Your task to perform on an android device: search for starred emails in the gmail app Image 0: 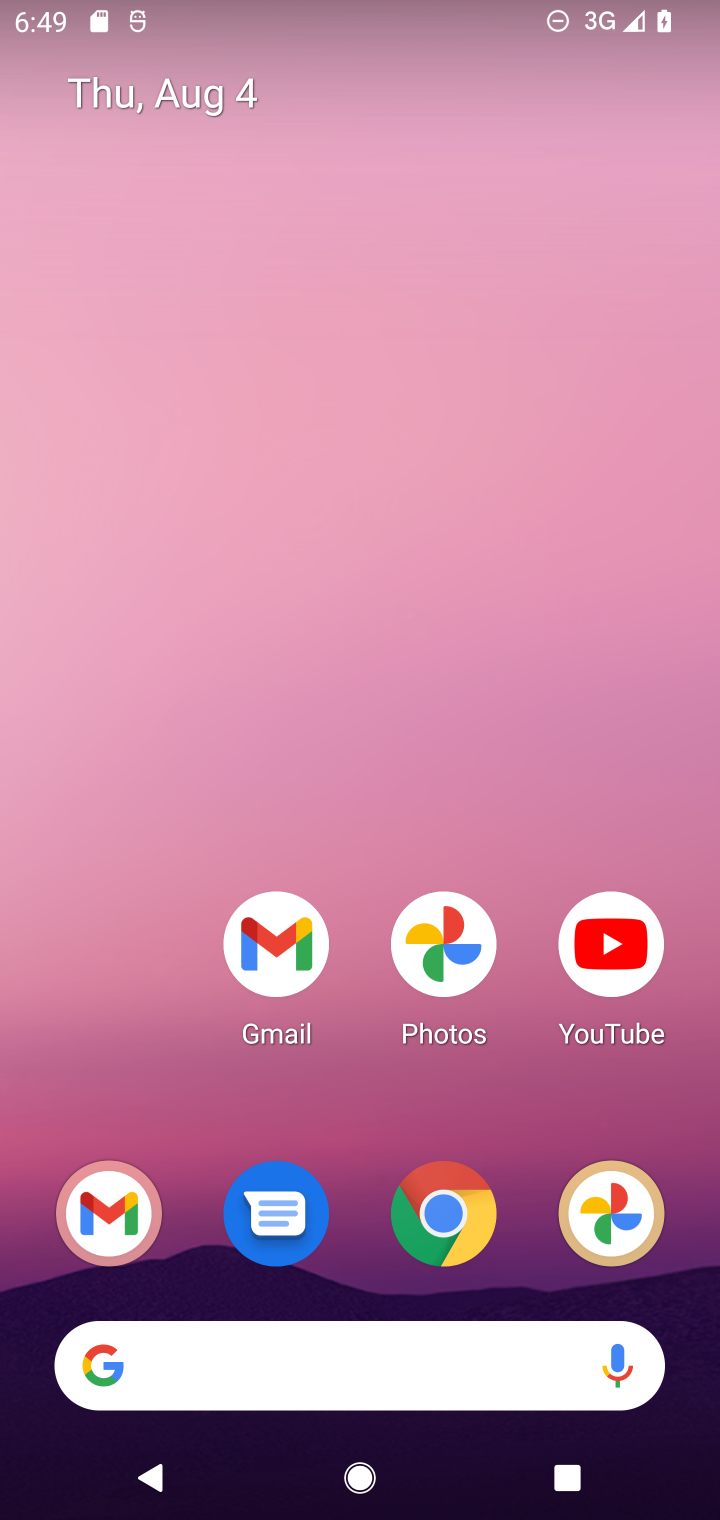
Step 0: press home button
Your task to perform on an android device: search for starred emails in the gmail app Image 1: 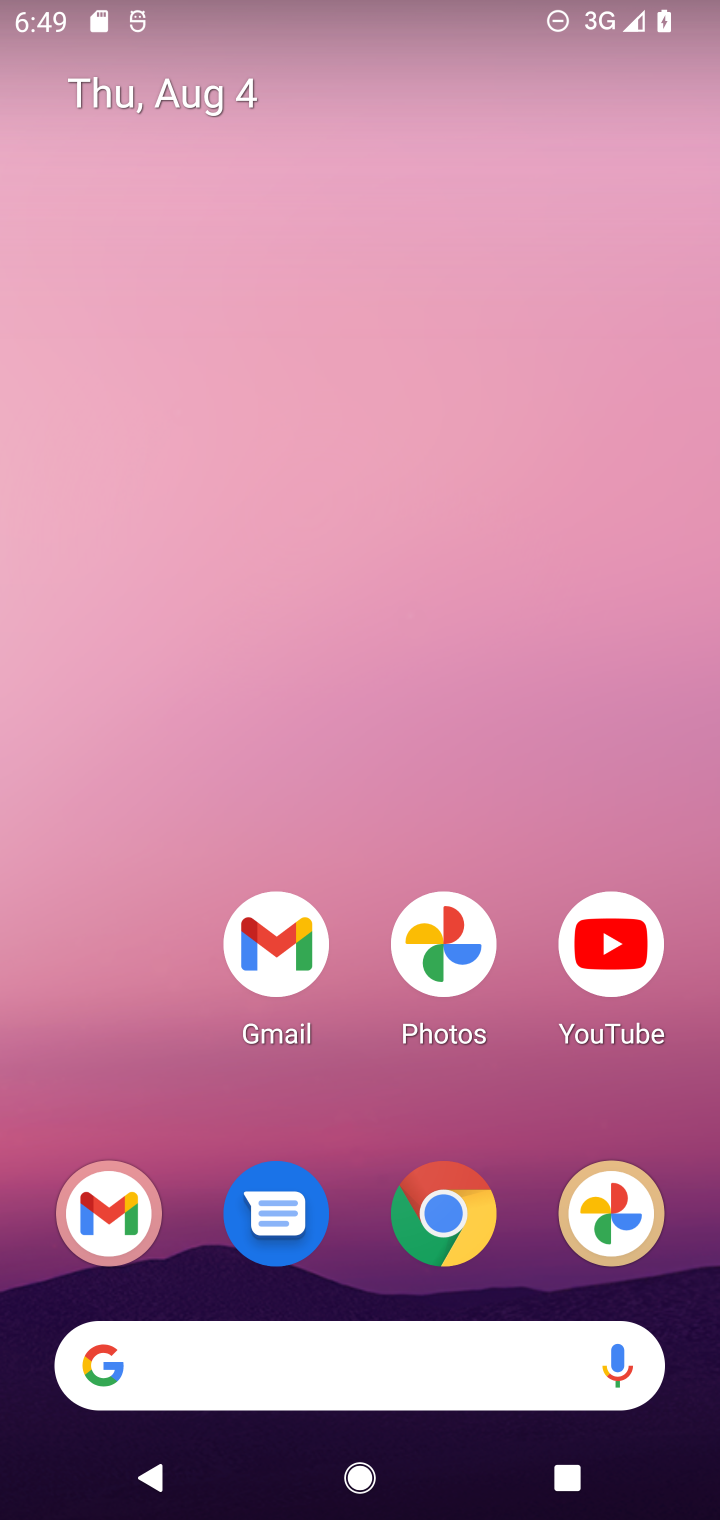
Step 1: drag from (130, 699) to (124, 274)
Your task to perform on an android device: search for starred emails in the gmail app Image 2: 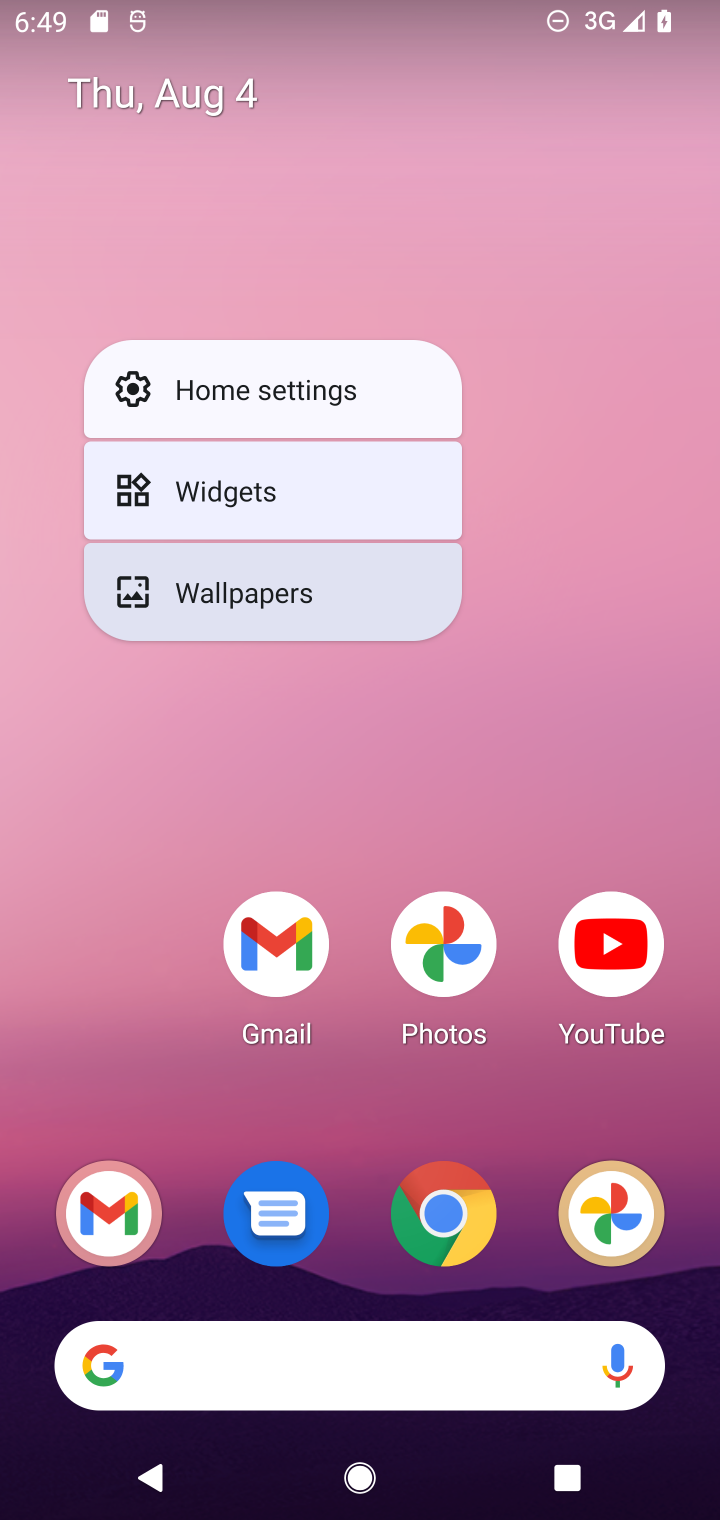
Step 2: click (186, 1058)
Your task to perform on an android device: search for starred emails in the gmail app Image 3: 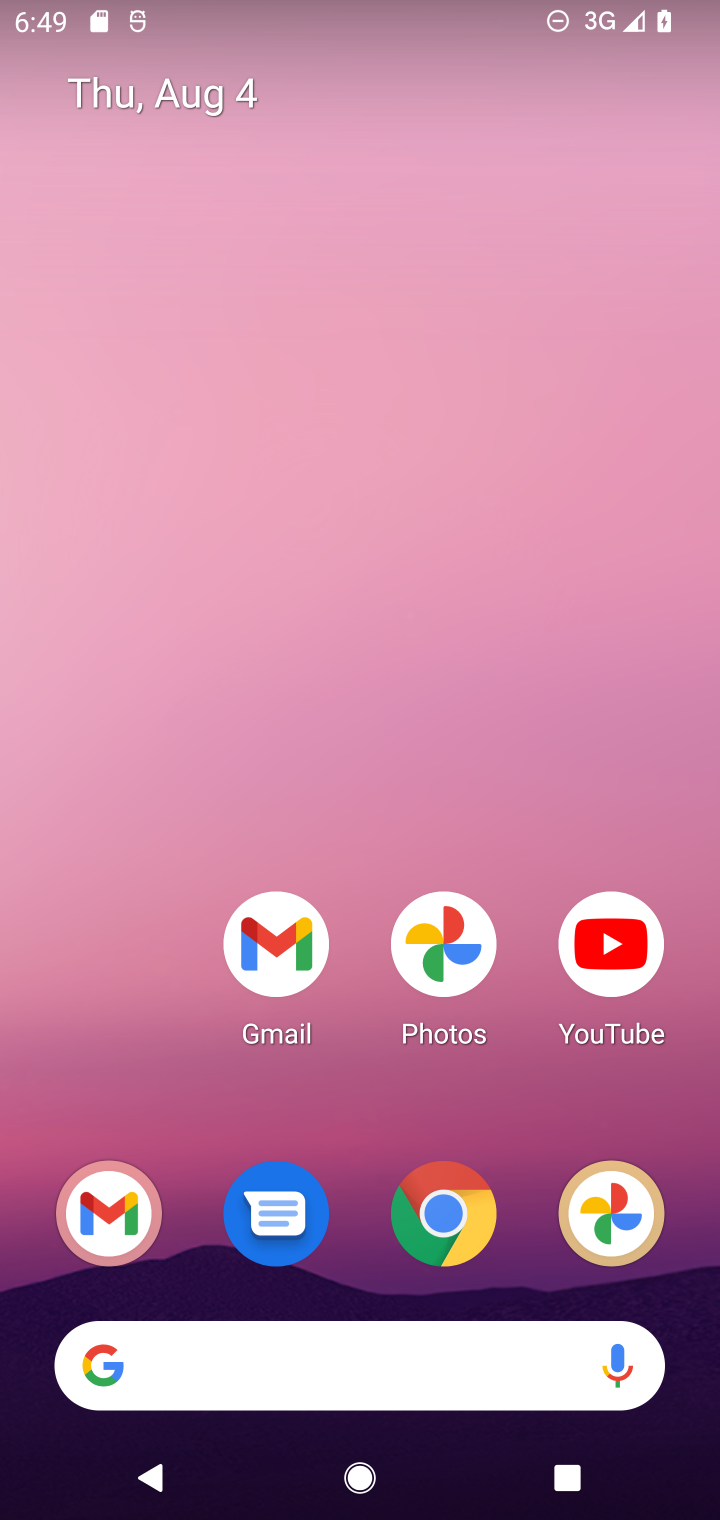
Step 3: drag from (141, 1051) to (96, 179)
Your task to perform on an android device: search for starred emails in the gmail app Image 4: 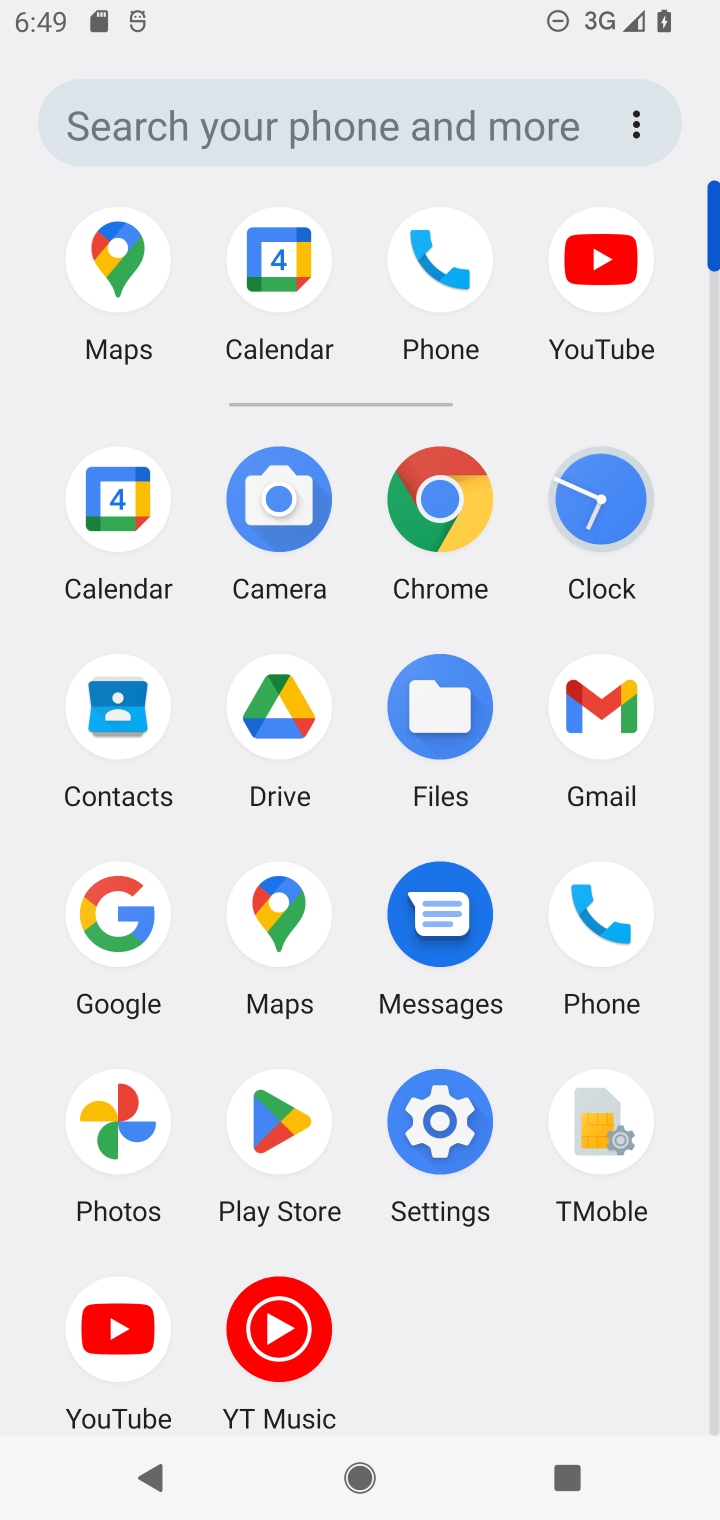
Step 4: click (600, 706)
Your task to perform on an android device: search for starred emails in the gmail app Image 5: 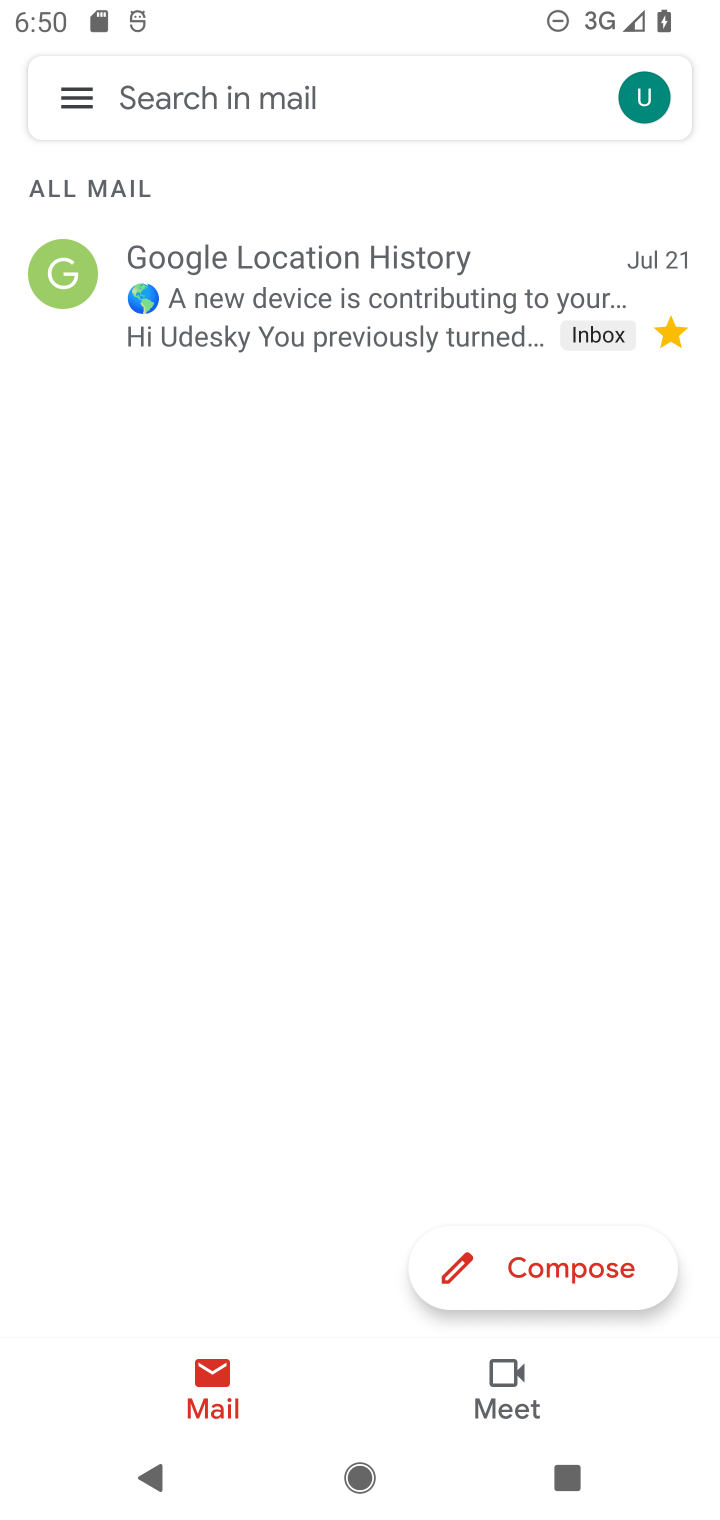
Step 5: click (82, 93)
Your task to perform on an android device: search for starred emails in the gmail app Image 6: 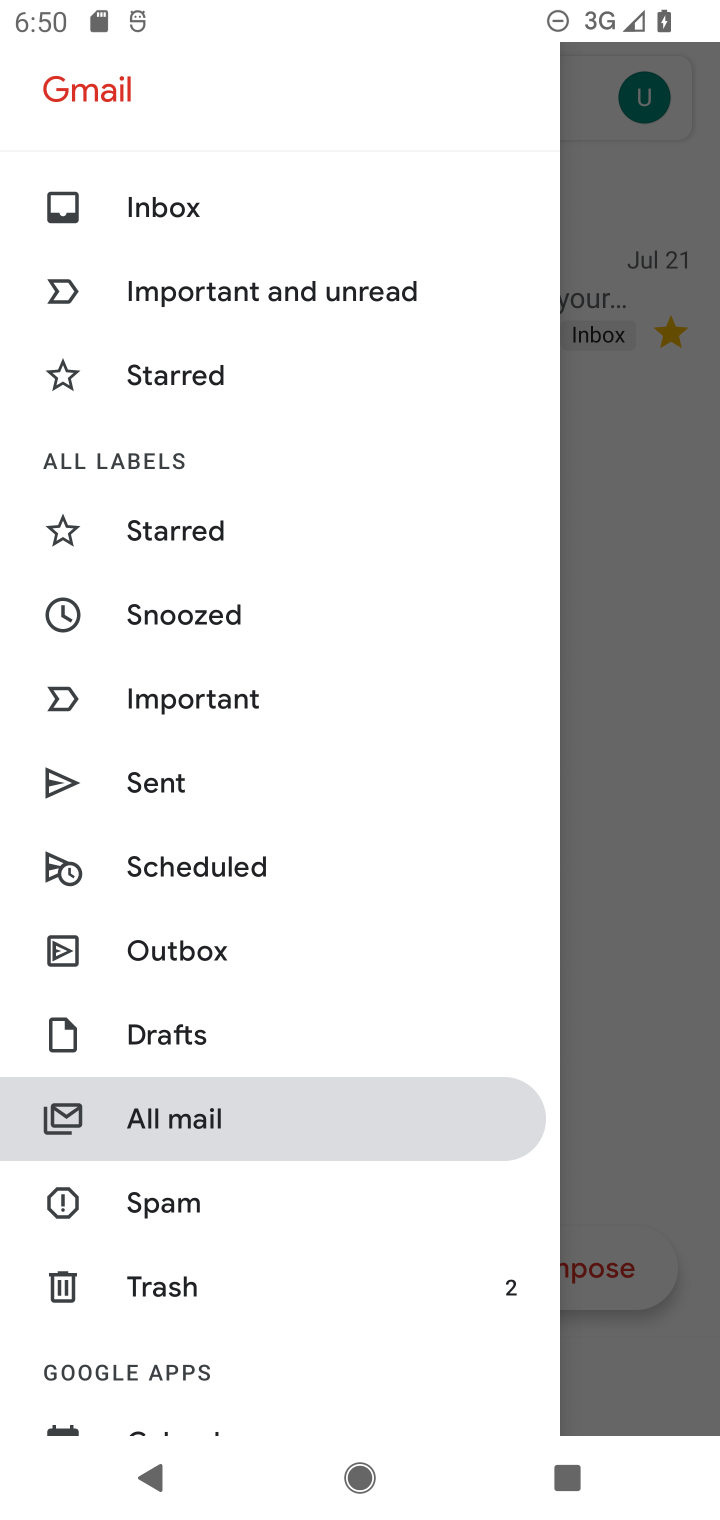
Step 6: click (238, 542)
Your task to perform on an android device: search for starred emails in the gmail app Image 7: 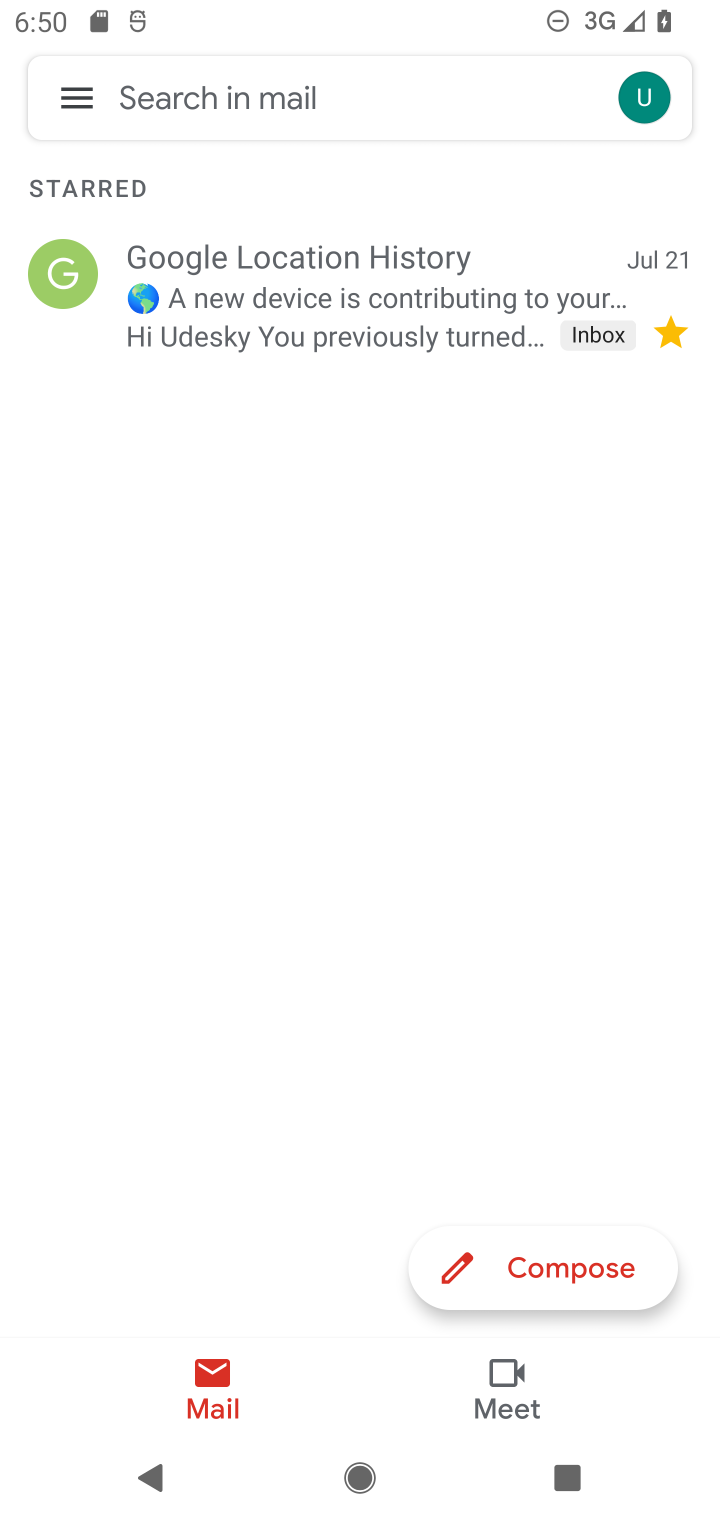
Step 7: task complete